Your task to perform on an android device: Show me productivity apps on the Play Store Image 0: 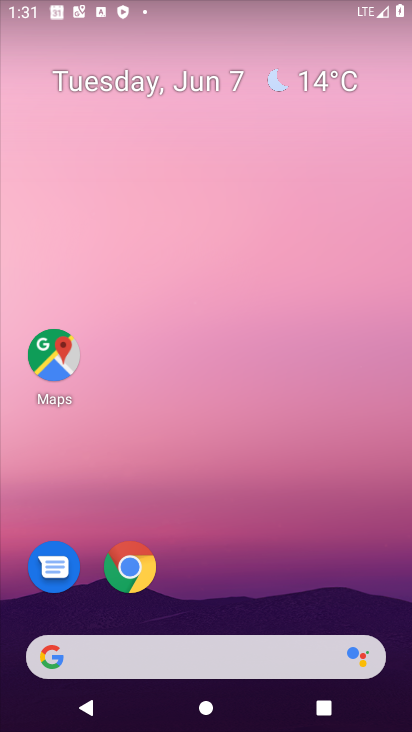
Step 0: drag from (284, 670) to (227, 40)
Your task to perform on an android device: Show me productivity apps on the Play Store Image 1: 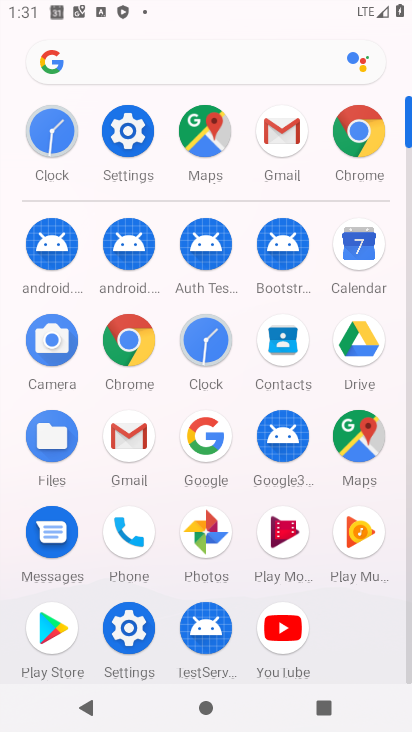
Step 1: click (59, 644)
Your task to perform on an android device: Show me productivity apps on the Play Store Image 2: 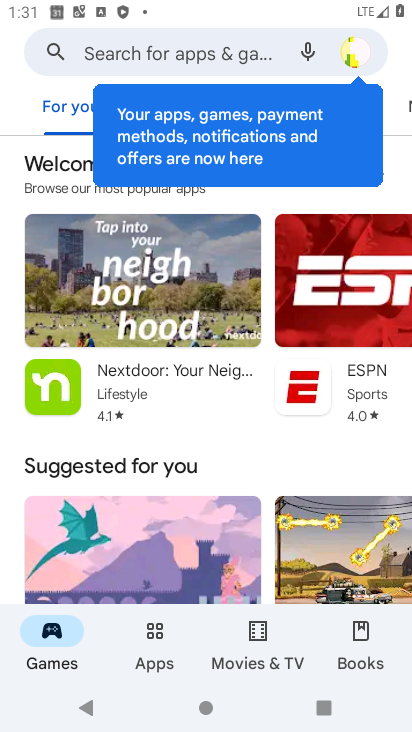
Step 2: click (142, 639)
Your task to perform on an android device: Show me productivity apps on the Play Store Image 3: 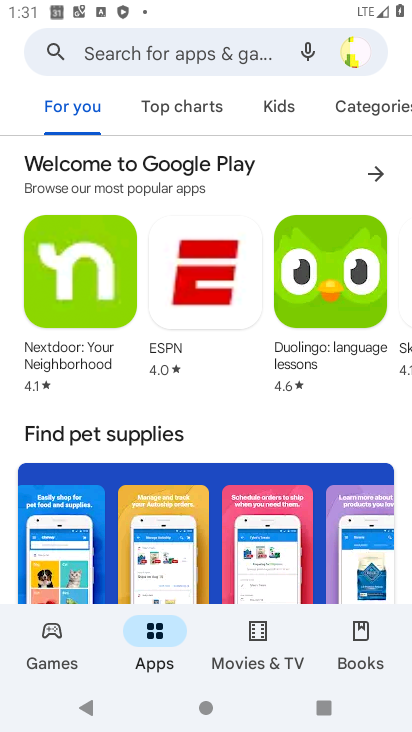
Step 3: drag from (313, 545) to (223, 61)
Your task to perform on an android device: Show me productivity apps on the Play Store Image 4: 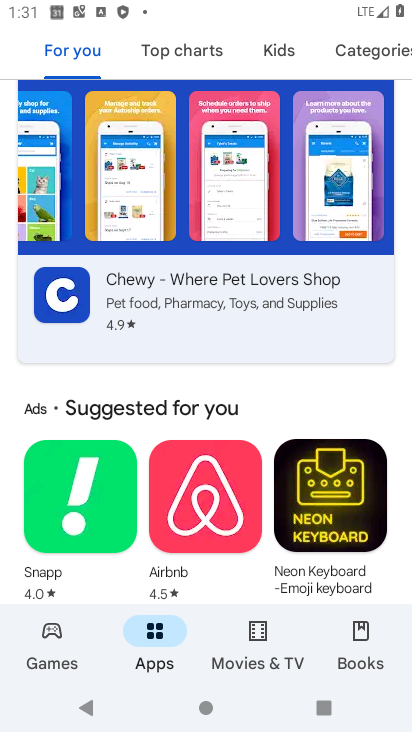
Step 4: drag from (220, 570) to (263, 161)
Your task to perform on an android device: Show me productivity apps on the Play Store Image 5: 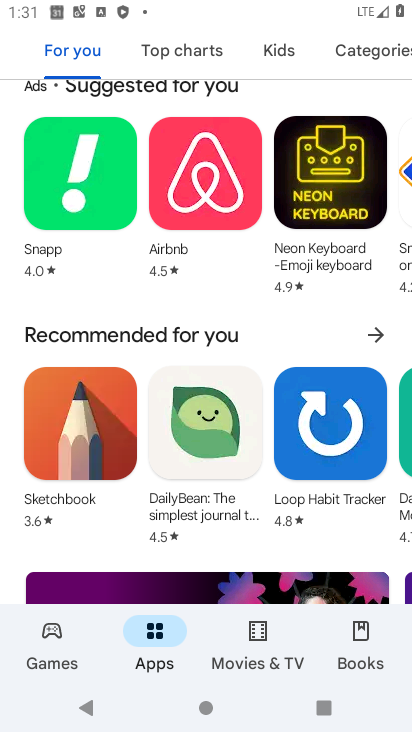
Step 5: drag from (233, 575) to (237, 214)
Your task to perform on an android device: Show me productivity apps on the Play Store Image 6: 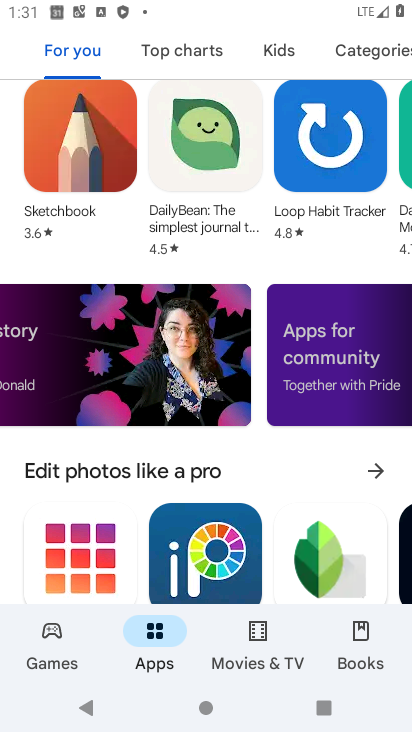
Step 6: drag from (241, 558) to (280, 76)
Your task to perform on an android device: Show me productivity apps on the Play Store Image 7: 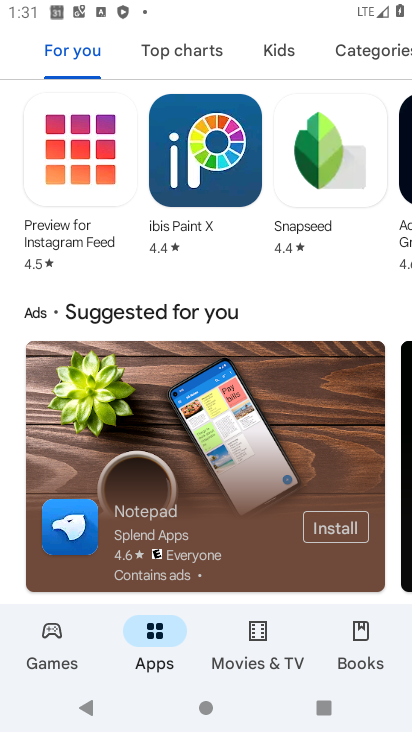
Step 7: drag from (276, 535) to (266, 131)
Your task to perform on an android device: Show me productivity apps on the Play Store Image 8: 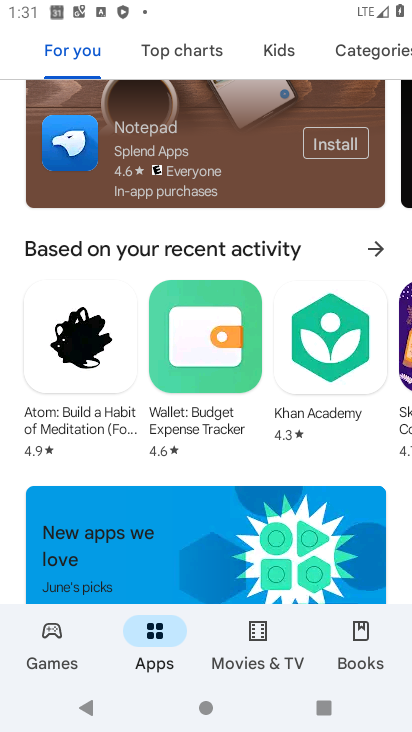
Step 8: drag from (262, 539) to (253, 200)
Your task to perform on an android device: Show me productivity apps on the Play Store Image 9: 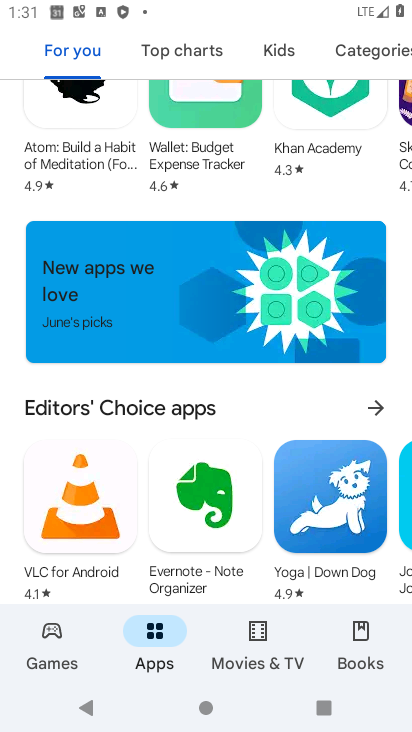
Step 9: drag from (228, 556) to (281, 190)
Your task to perform on an android device: Show me productivity apps on the Play Store Image 10: 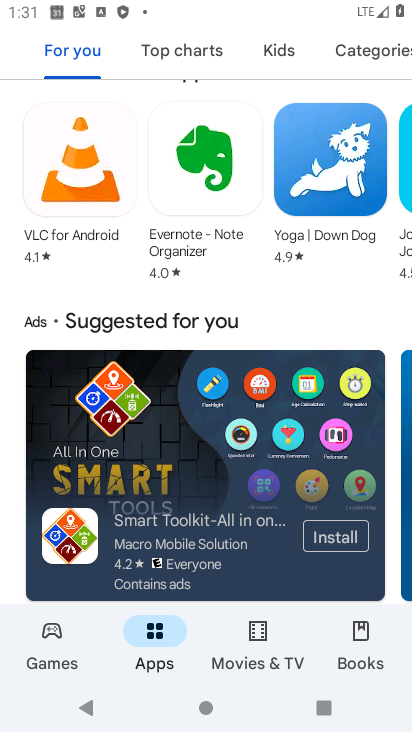
Step 10: drag from (276, 530) to (307, 178)
Your task to perform on an android device: Show me productivity apps on the Play Store Image 11: 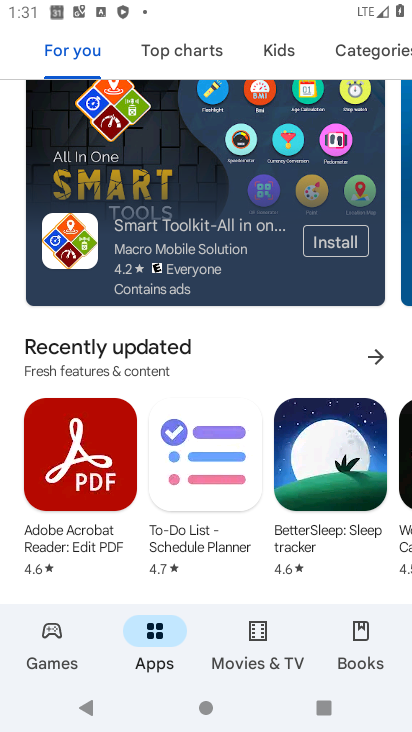
Step 11: drag from (228, 562) to (221, 171)
Your task to perform on an android device: Show me productivity apps on the Play Store Image 12: 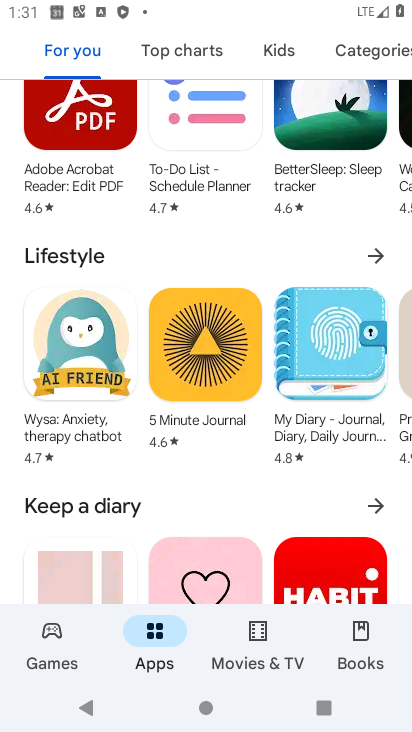
Step 12: drag from (233, 569) to (237, 264)
Your task to perform on an android device: Show me productivity apps on the Play Store Image 13: 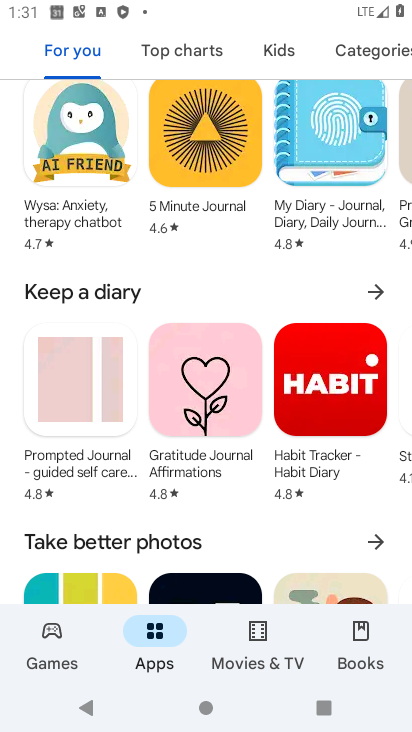
Step 13: drag from (229, 539) to (230, 232)
Your task to perform on an android device: Show me productivity apps on the Play Store Image 14: 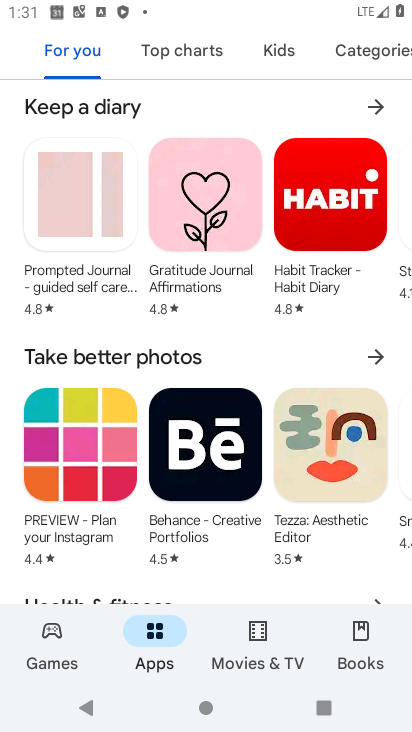
Step 14: drag from (237, 585) to (239, 172)
Your task to perform on an android device: Show me productivity apps on the Play Store Image 15: 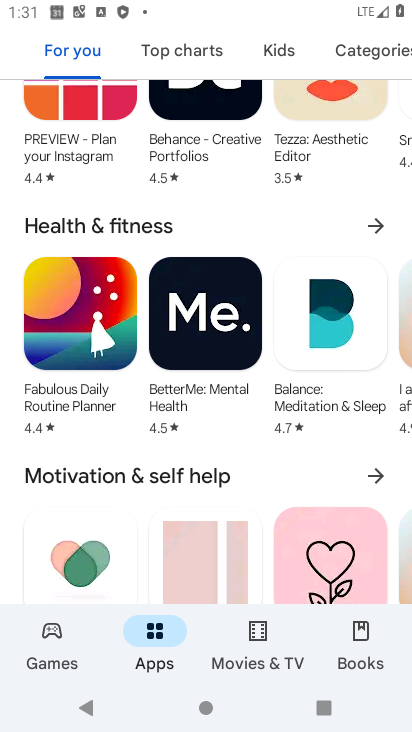
Step 15: drag from (220, 551) to (225, 128)
Your task to perform on an android device: Show me productivity apps on the Play Store Image 16: 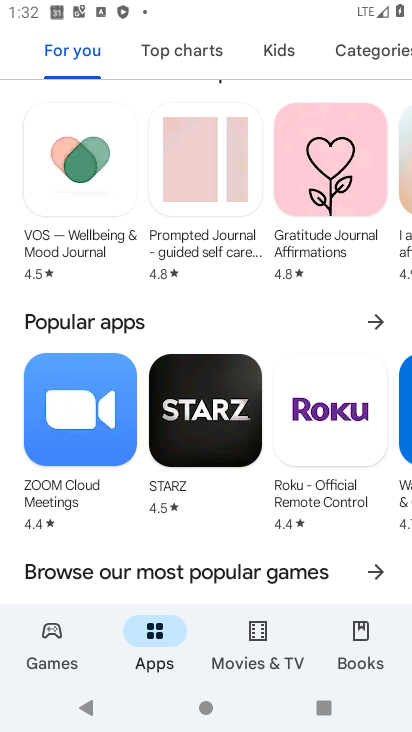
Step 16: drag from (232, 553) to (289, 63)
Your task to perform on an android device: Show me productivity apps on the Play Store Image 17: 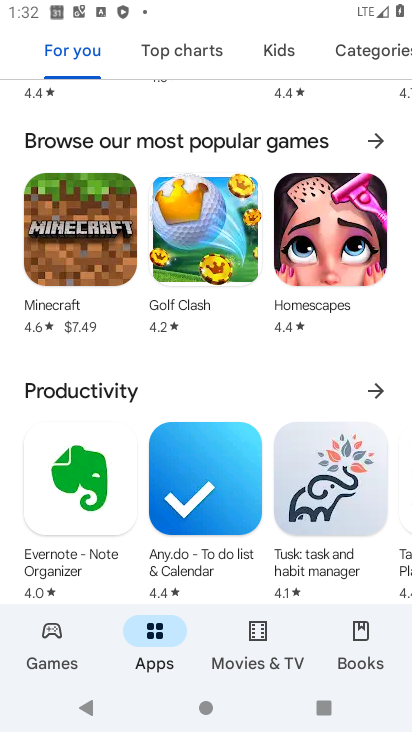
Step 17: click (374, 390)
Your task to perform on an android device: Show me productivity apps on the Play Store Image 18: 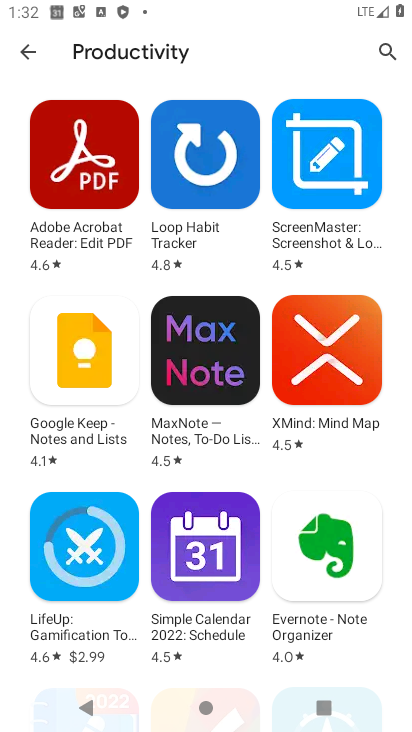
Step 18: task complete